Your task to perform on an android device: Empty the shopping cart on walmart.com. Search for acer nitro on walmart.com, select the first entry, add it to the cart, then select checkout. Image 0: 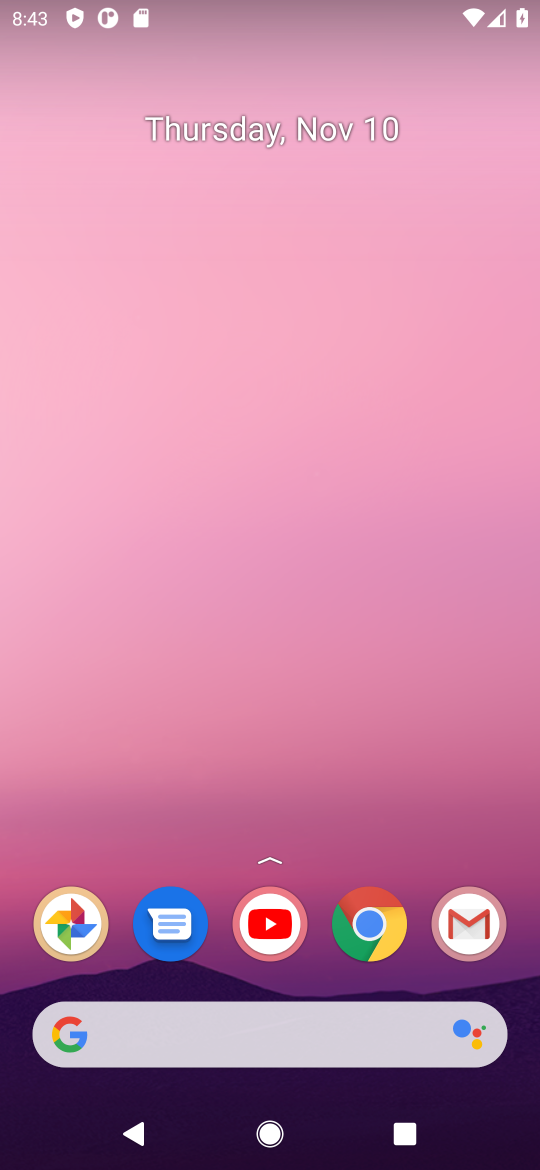
Step 0: click (372, 929)
Your task to perform on an android device: Empty the shopping cart on walmart.com. Search for acer nitro on walmart.com, select the first entry, add it to the cart, then select checkout. Image 1: 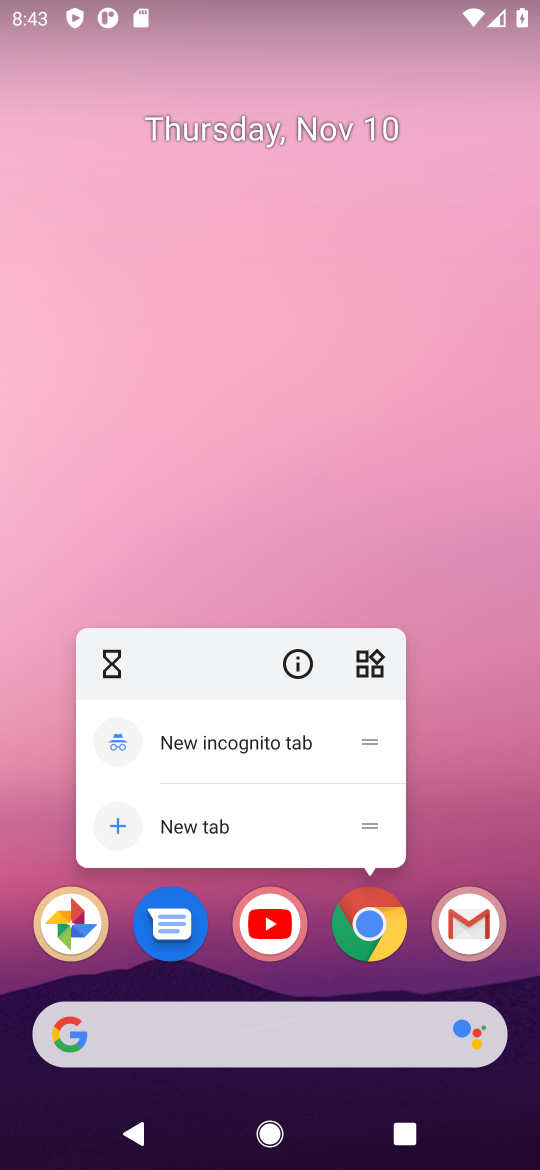
Step 1: click (372, 929)
Your task to perform on an android device: Empty the shopping cart on walmart.com. Search for acer nitro on walmart.com, select the first entry, add it to the cart, then select checkout. Image 2: 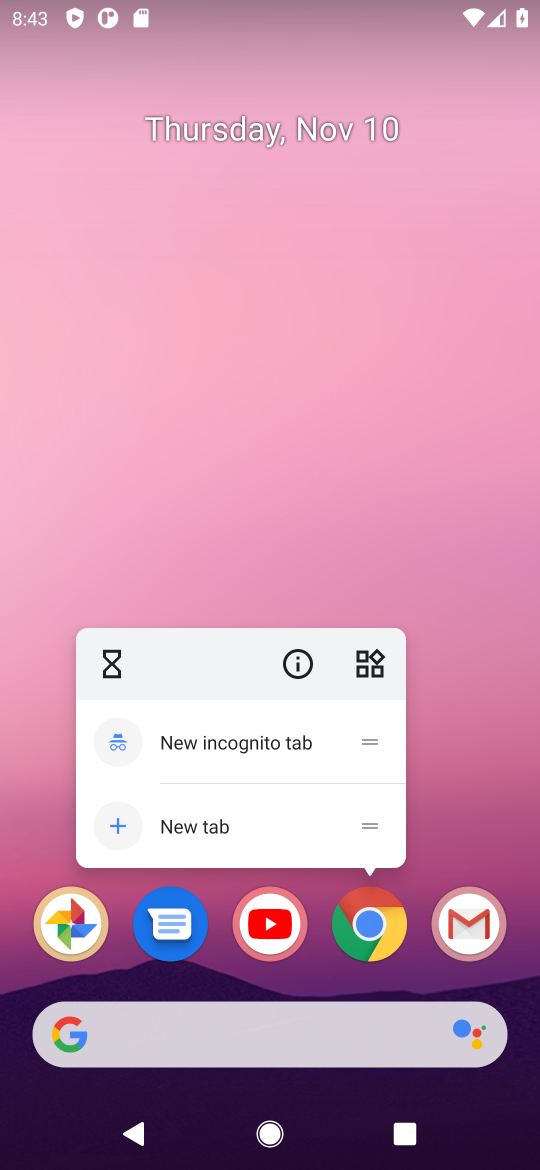
Step 2: click (369, 932)
Your task to perform on an android device: Empty the shopping cart on walmart.com. Search for acer nitro on walmart.com, select the first entry, add it to the cart, then select checkout. Image 3: 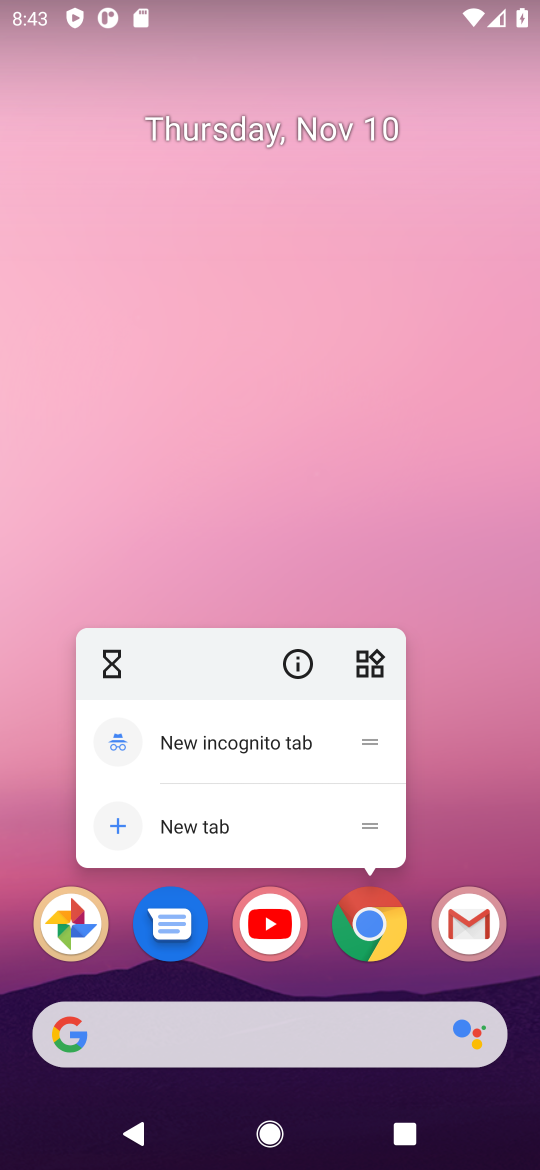
Step 3: click (508, 710)
Your task to perform on an android device: Empty the shopping cart on walmart.com. Search for acer nitro on walmart.com, select the first entry, add it to the cart, then select checkout. Image 4: 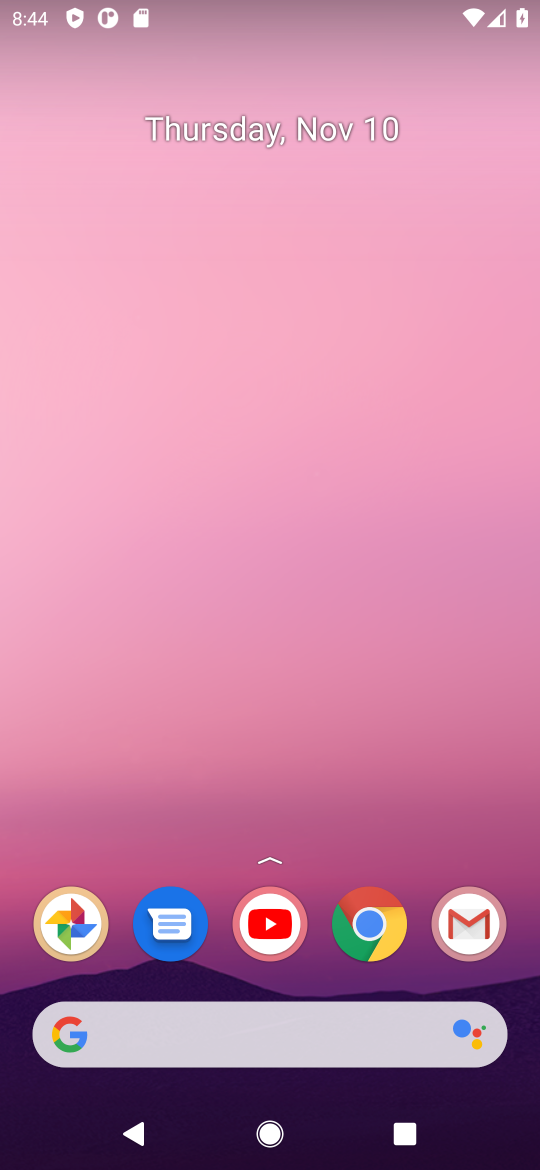
Step 4: click (377, 922)
Your task to perform on an android device: Empty the shopping cart on walmart.com. Search for acer nitro on walmart.com, select the first entry, add it to the cart, then select checkout. Image 5: 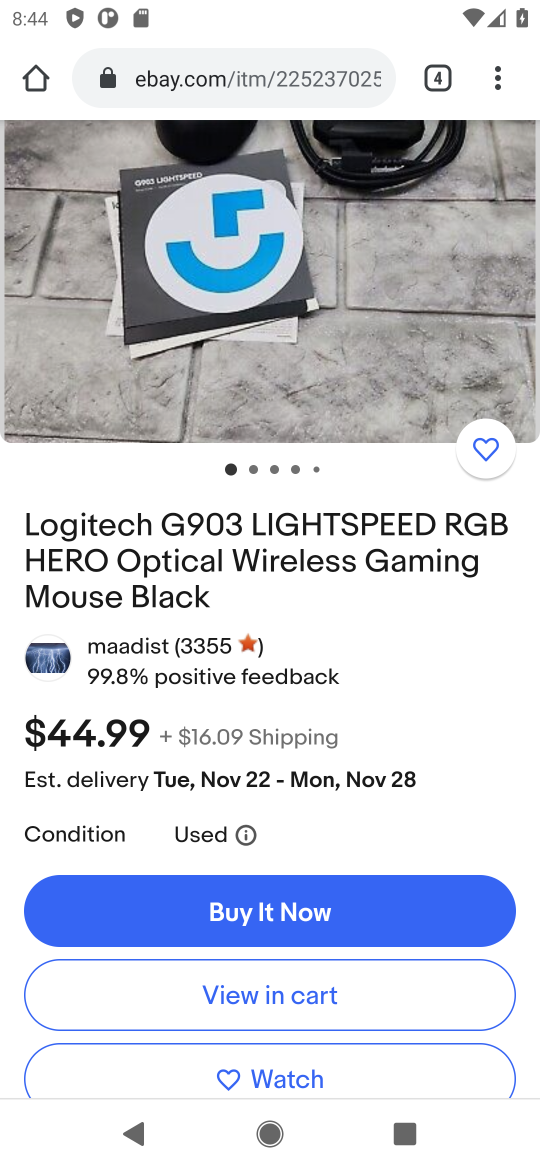
Step 5: click (215, 82)
Your task to perform on an android device: Empty the shopping cart on walmart.com. Search for acer nitro on walmart.com, select the first entry, add it to the cart, then select checkout. Image 6: 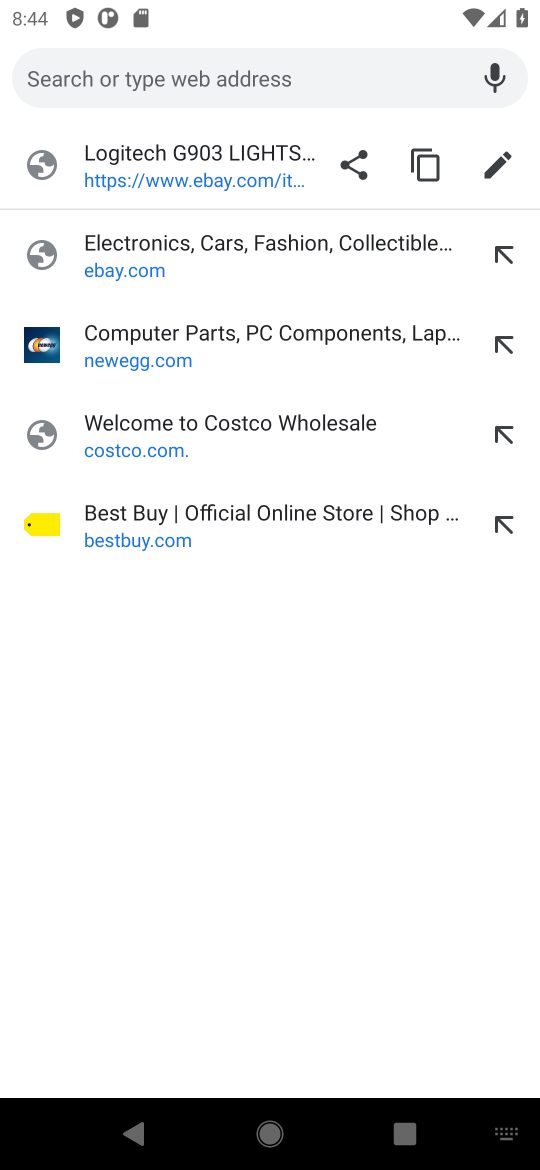
Step 6: type "walmart.com"
Your task to perform on an android device: Empty the shopping cart on walmart.com. Search for acer nitro on walmart.com, select the first entry, add it to the cart, then select checkout. Image 7: 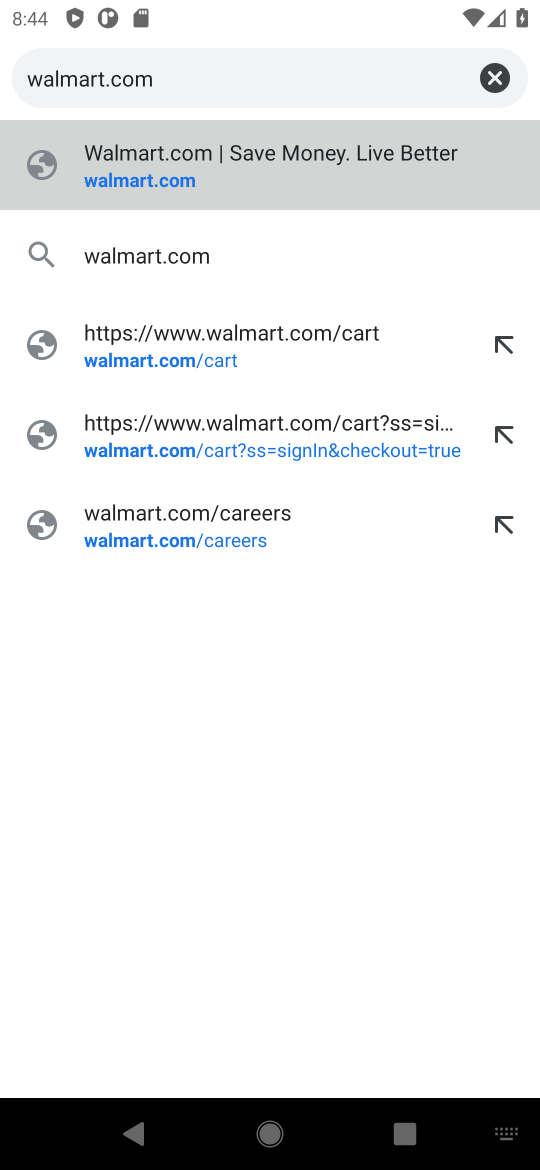
Step 7: click (119, 184)
Your task to perform on an android device: Empty the shopping cart on walmart.com. Search for acer nitro on walmart.com, select the first entry, add it to the cart, then select checkout. Image 8: 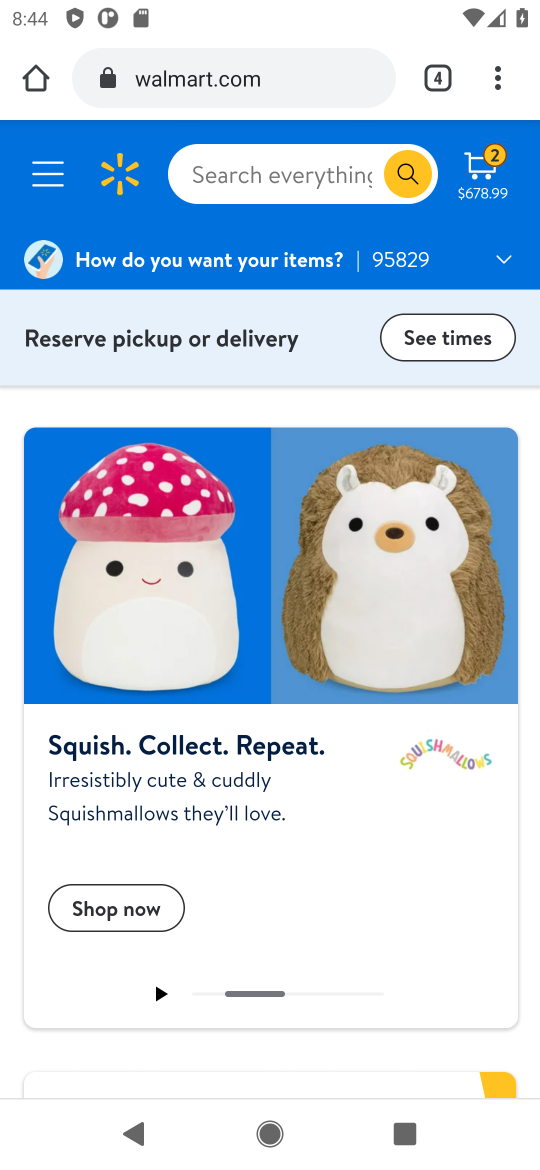
Step 8: click (481, 176)
Your task to perform on an android device: Empty the shopping cart on walmart.com. Search for acer nitro on walmart.com, select the first entry, add it to the cart, then select checkout. Image 9: 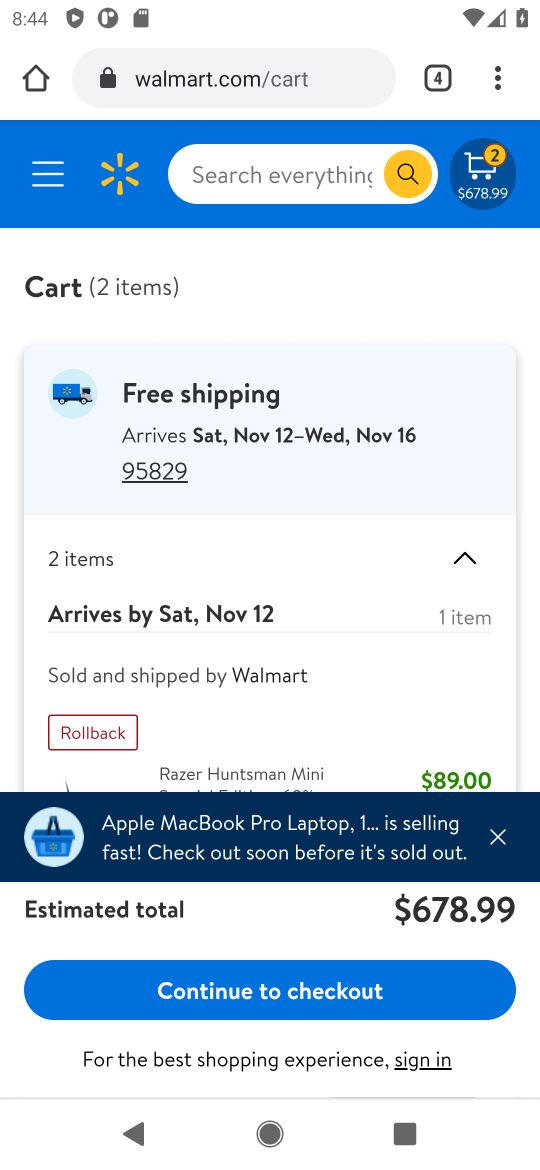
Step 9: drag from (252, 758) to (240, 364)
Your task to perform on an android device: Empty the shopping cart on walmart.com. Search for acer nitro on walmart.com, select the first entry, add it to the cart, then select checkout. Image 10: 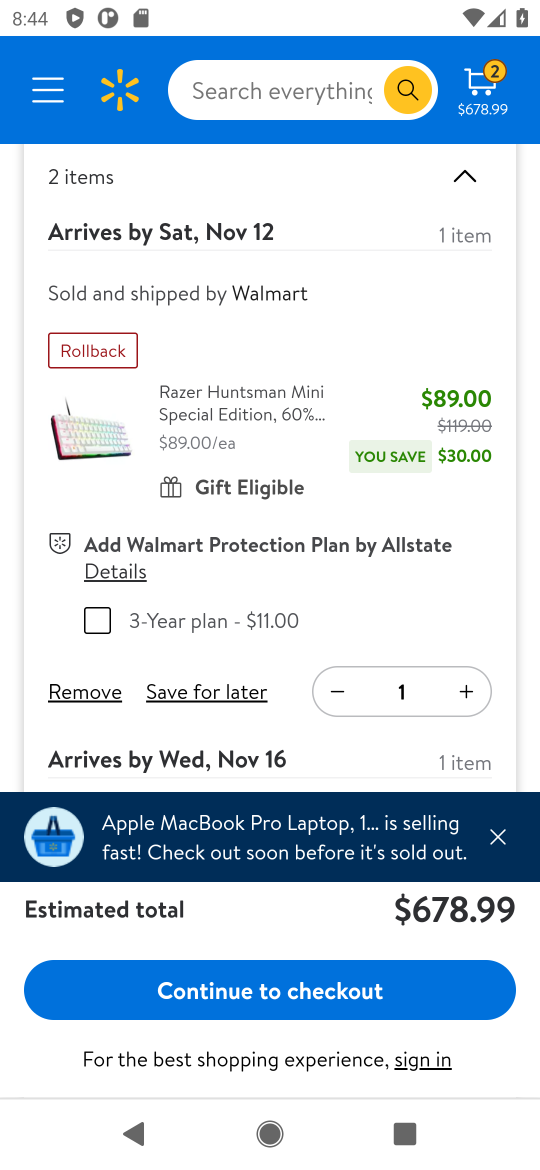
Step 10: click (493, 833)
Your task to perform on an android device: Empty the shopping cart on walmart.com. Search for acer nitro on walmart.com, select the first entry, add it to the cart, then select checkout. Image 11: 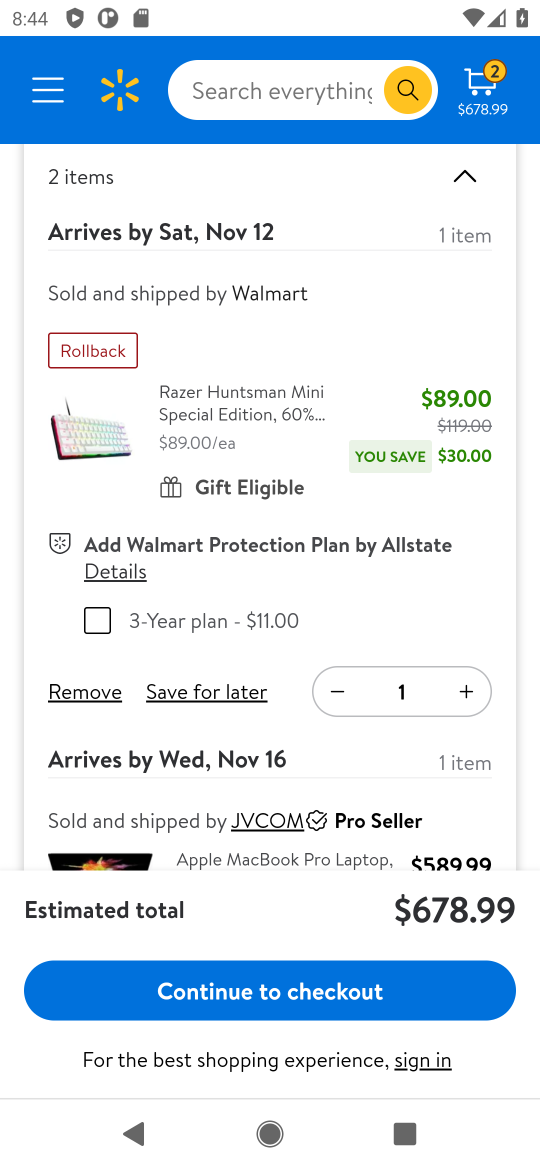
Step 11: click (73, 699)
Your task to perform on an android device: Empty the shopping cart on walmart.com. Search for acer nitro on walmart.com, select the first entry, add it to the cart, then select checkout. Image 12: 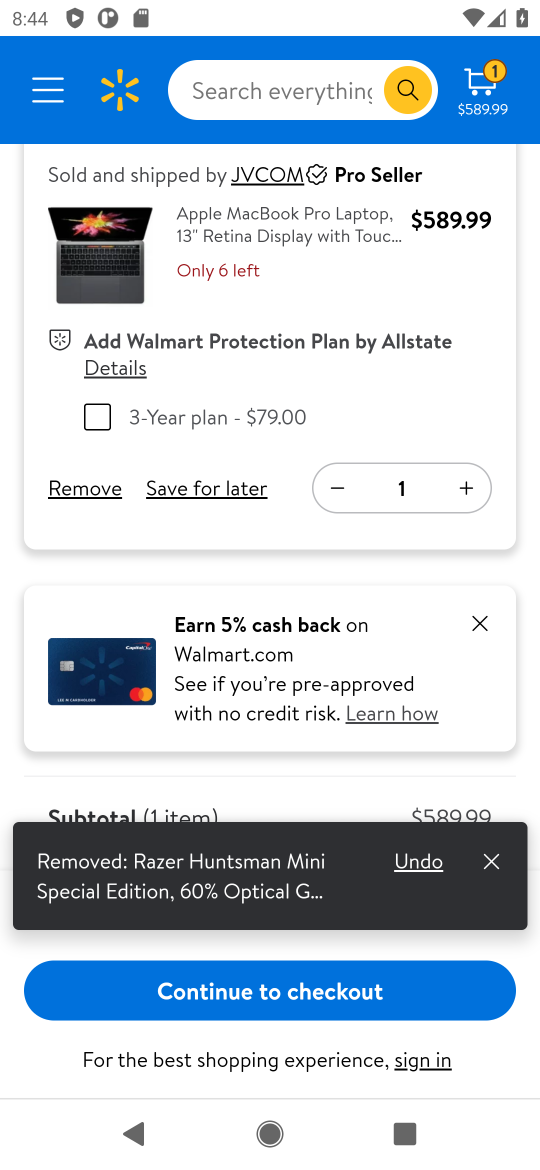
Step 12: click (63, 492)
Your task to perform on an android device: Empty the shopping cart on walmart.com. Search for acer nitro on walmart.com, select the first entry, add it to the cart, then select checkout. Image 13: 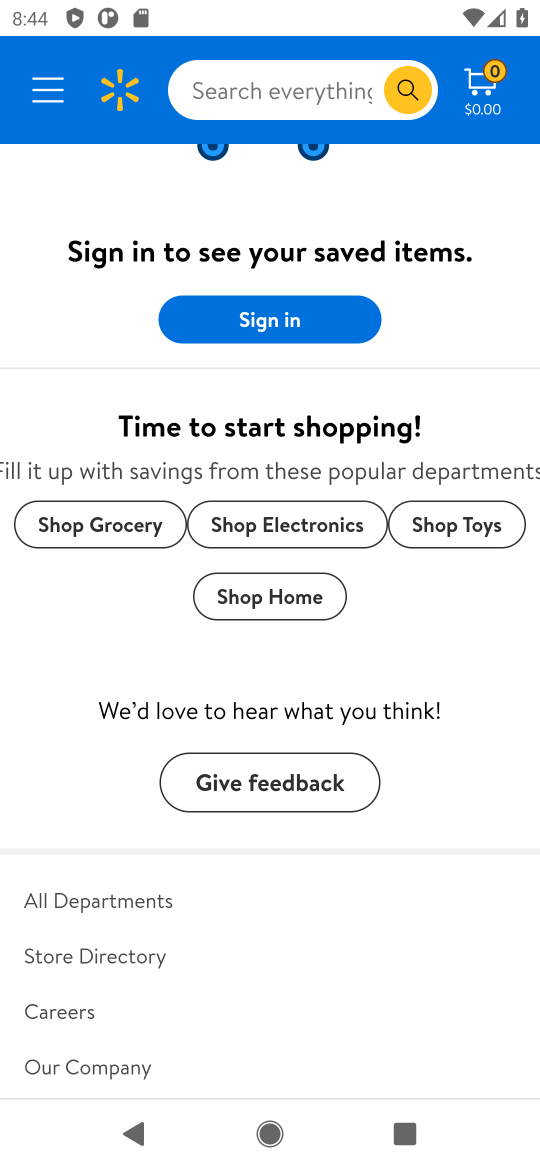
Step 13: click (275, 101)
Your task to perform on an android device: Empty the shopping cart on walmart.com. Search for acer nitro on walmart.com, select the first entry, add it to the cart, then select checkout. Image 14: 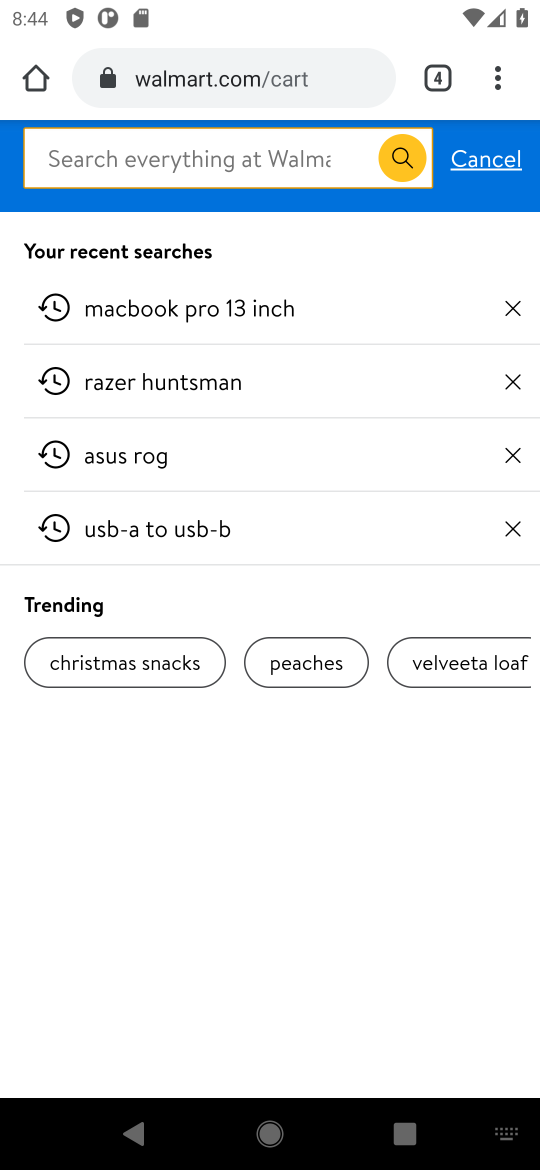
Step 14: type "acer nitro "
Your task to perform on an android device: Empty the shopping cart on walmart.com. Search for acer nitro on walmart.com, select the first entry, add it to the cart, then select checkout. Image 15: 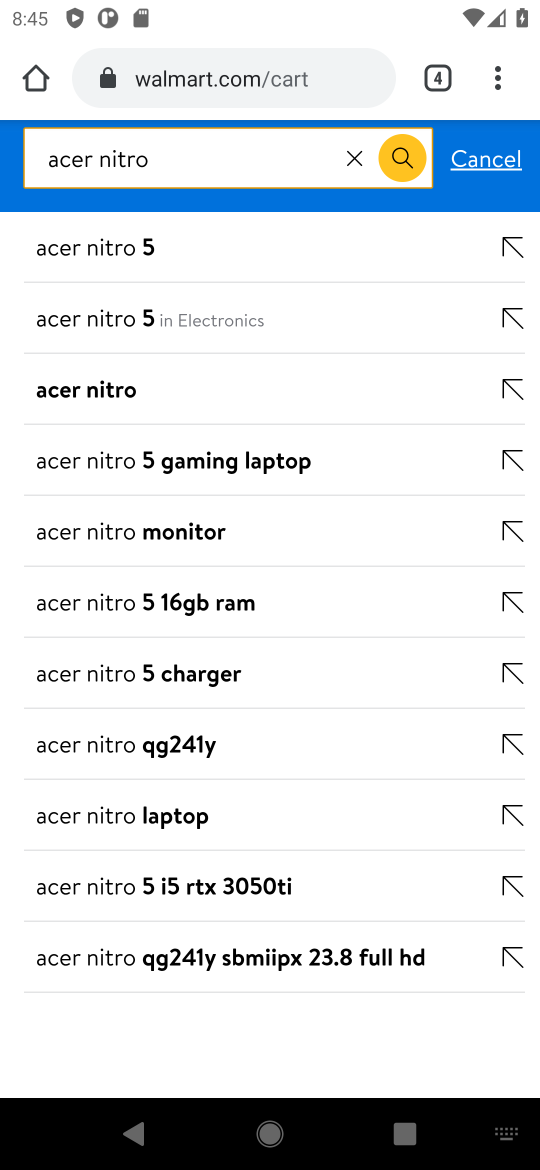
Step 15: click (57, 400)
Your task to perform on an android device: Empty the shopping cart on walmart.com. Search for acer nitro on walmart.com, select the first entry, add it to the cart, then select checkout. Image 16: 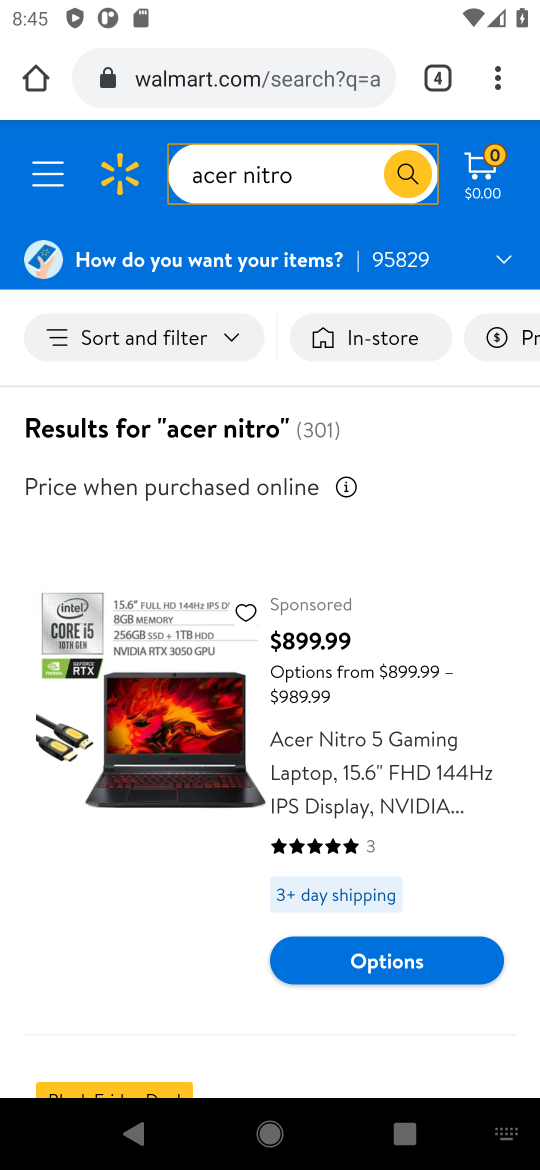
Step 16: click (175, 737)
Your task to perform on an android device: Empty the shopping cart on walmart.com. Search for acer nitro on walmart.com, select the first entry, add it to the cart, then select checkout. Image 17: 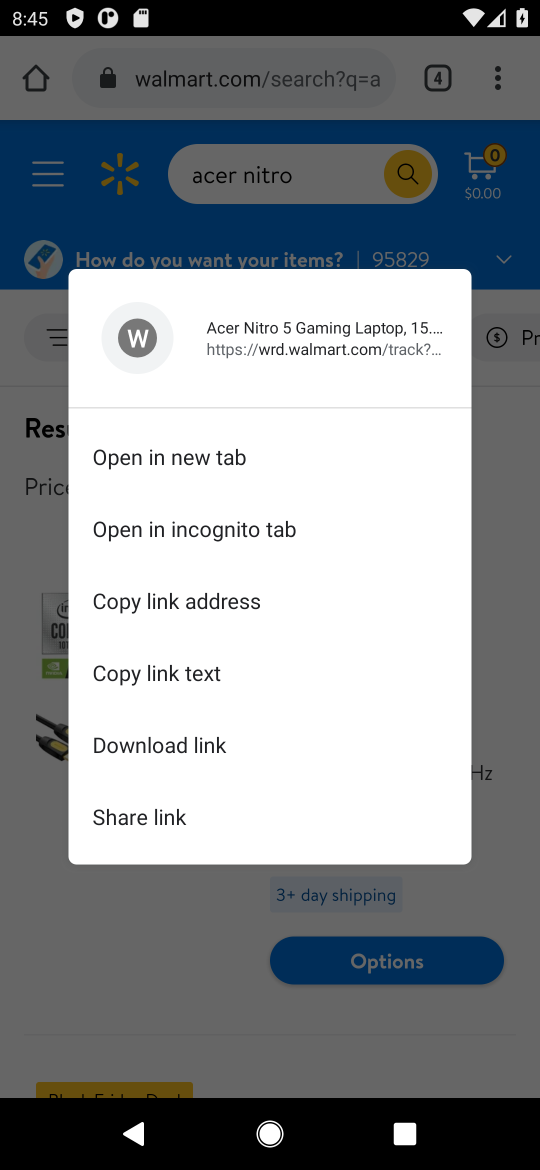
Step 17: click (45, 741)
Your task to perform on an android device: Empty the shopping cart on walmart.com. Search for acer nitro on walmart.com, select the first entry, add it to the cart, then select checkout. Image 18: 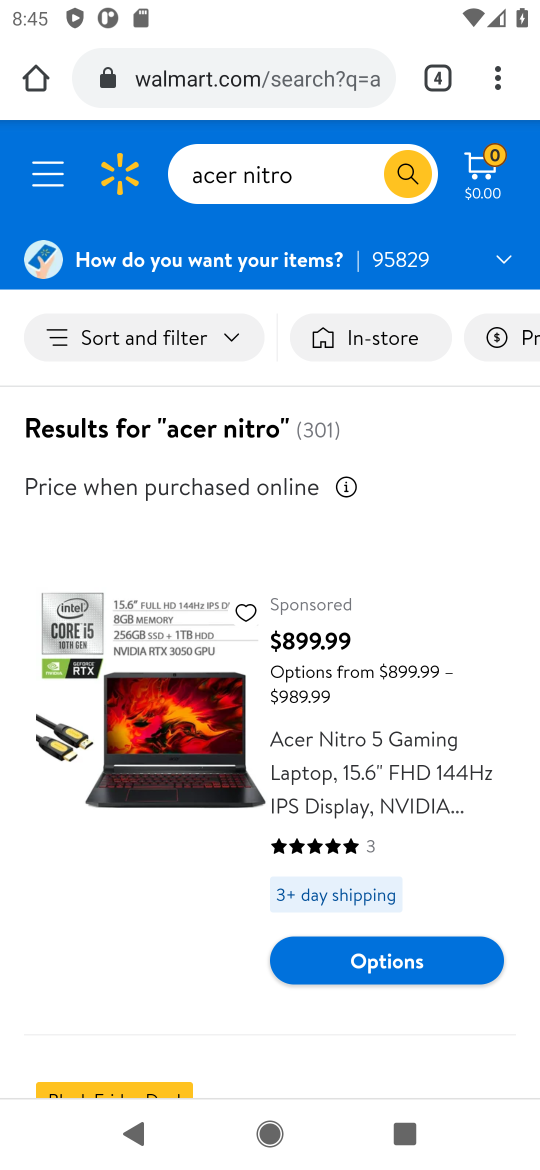
Step 18: click (138, 739)
Your task to perform on an android device: Empty the shopping cart on walmart.com. Search for acer nitro on walmart.com, select the first entry, add it to the cart, then select checkout. Image 19: 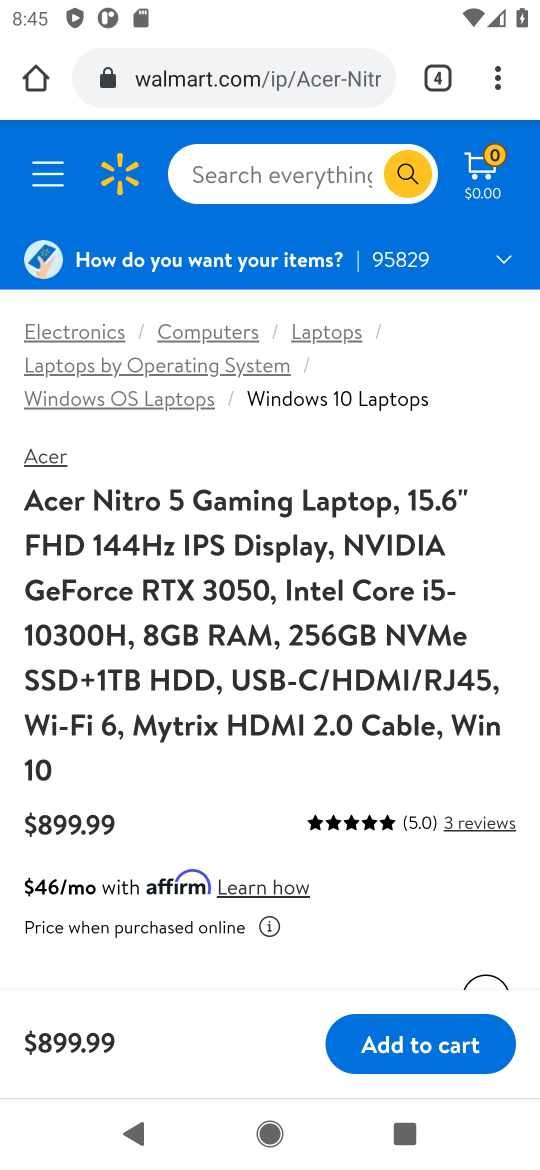
Step 19: click (422, 1045)
Your task to perform on an android device: Empty the shopping cart on walmart.com. Search for acer nitro on walmart.com, select the first entry, add it to the cart, then select checkout. Image 20: 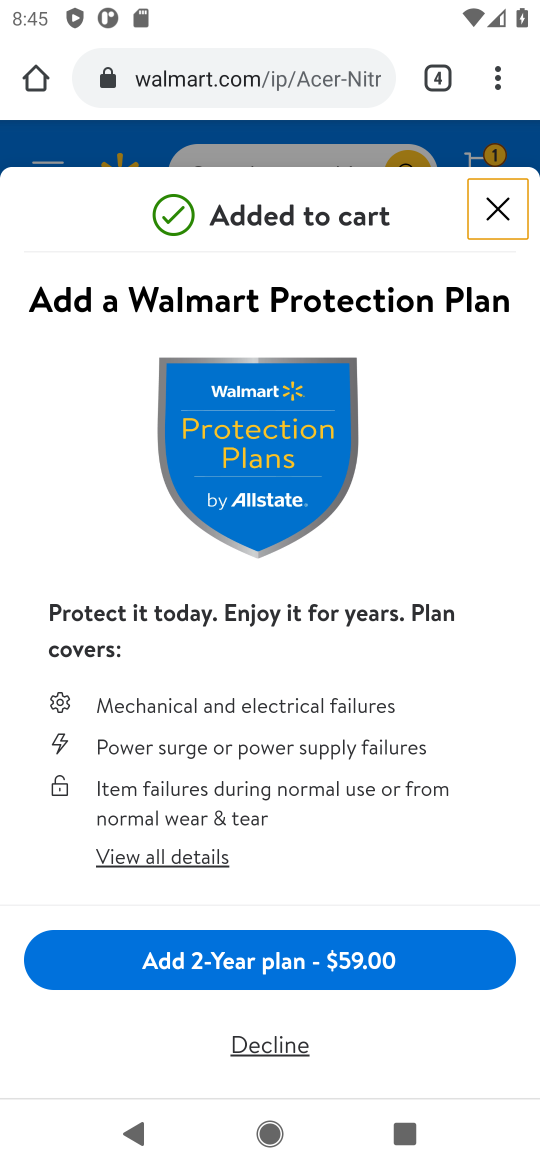
Step 20: click (509, 216)
Your task to perform on an android device: Empty the shopping cart on walmart.com. Search for acer nitro on walmart.com, select the first entry, add it to the cart, then select checkout. Image 21: 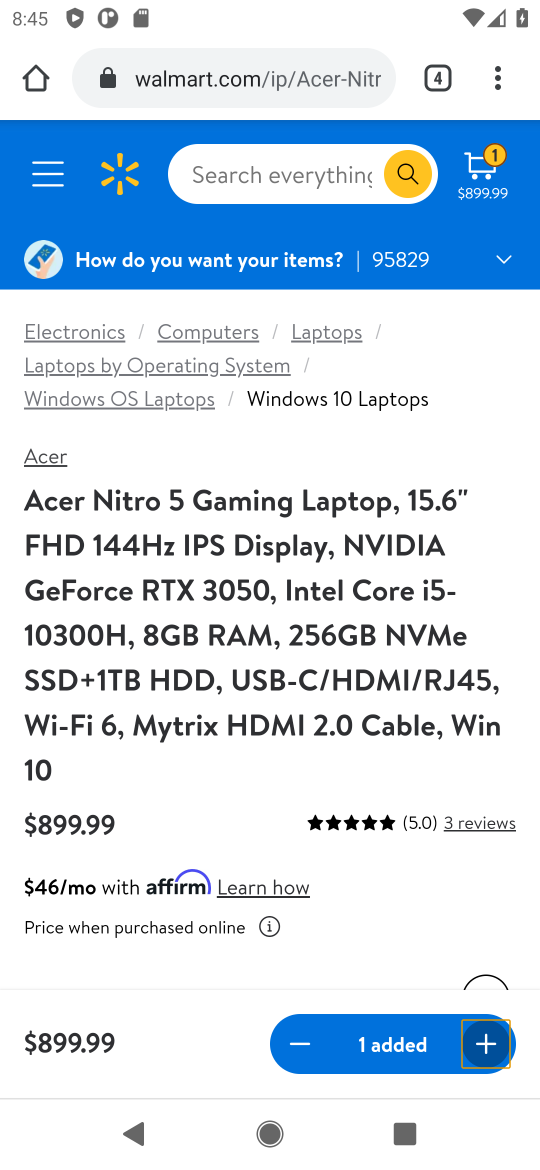
Step 21: click (484, 172)
Your task to perform on an android device: Empty the shopping cart on walmart.com. Search for acer nitro on walmart.com, select the first entry, add it to the cart, then select checkout. Image 22: 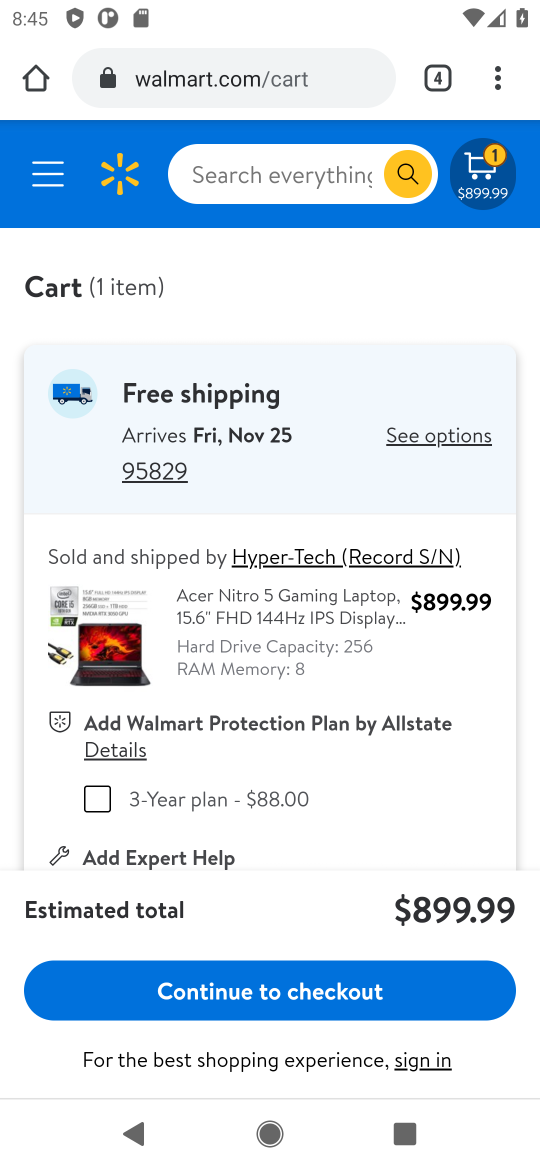
Step 22: click (271, 990)
Your task to perform on an android device: Empty the shopping cart on walmart.com. Search for acer nitro on walmart.com, select the first entry, add it to the cart, then select checkout. Image 23: 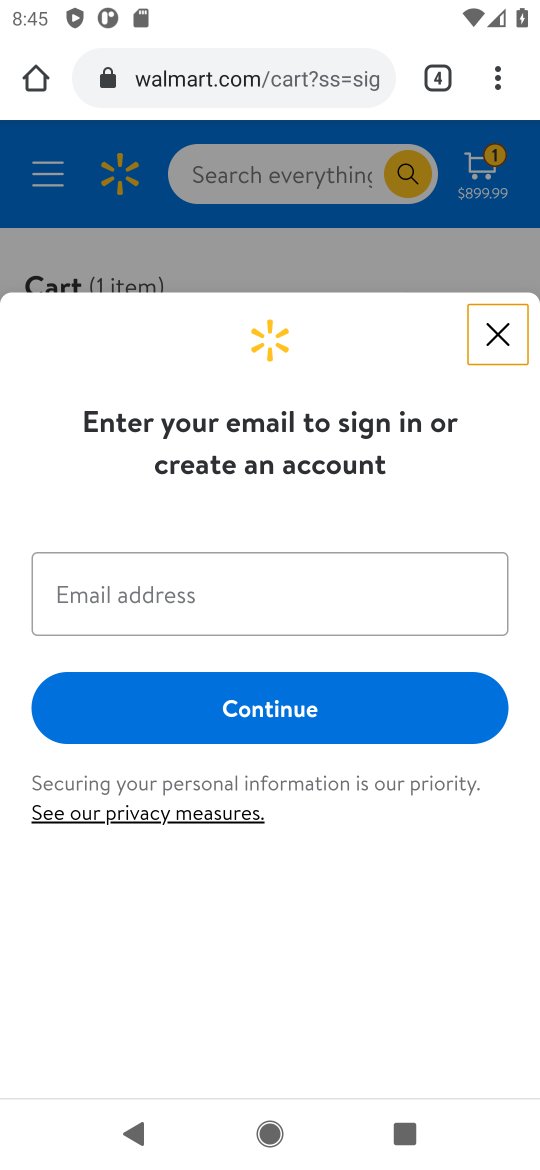
Step 23: task complete